Your task to perform on an android device: Open Chrome and go to settings Image 0: 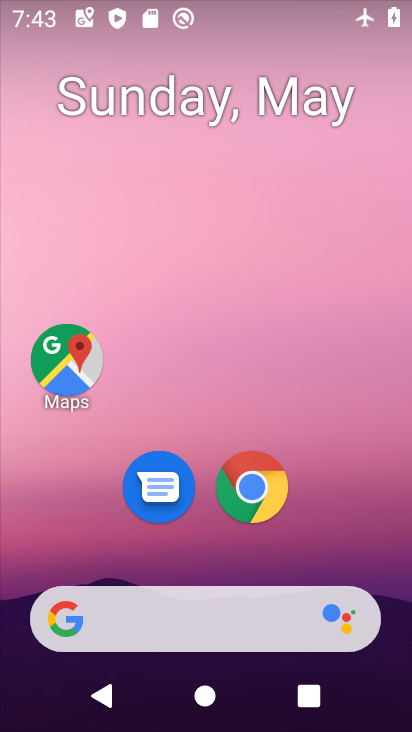
Step 0: drag from (393, 570) to (378, 270)
Your task to perform on an android device: Open Chrome and go to settings Image 1: 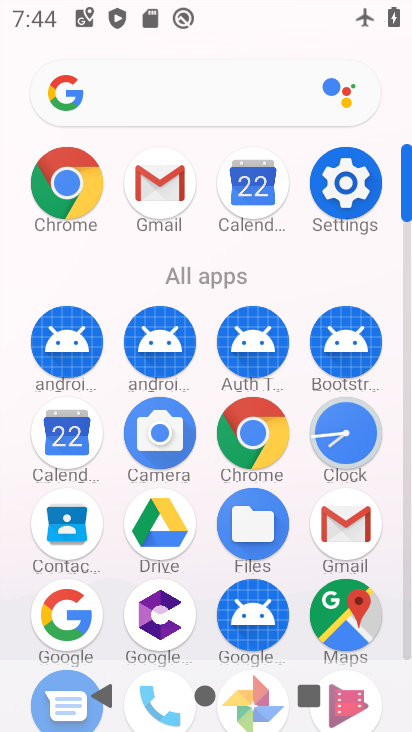
Step 1: click (246, 437)
Your task to perform on an android device: Open Chrome and go to settings Image 2: 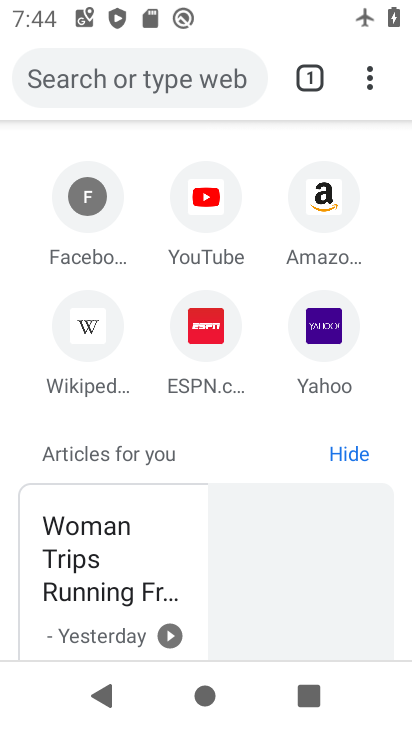
Step 2: click (369, 90)
Your task to perform on an android device: Open Chrome and go to settings Image 3: 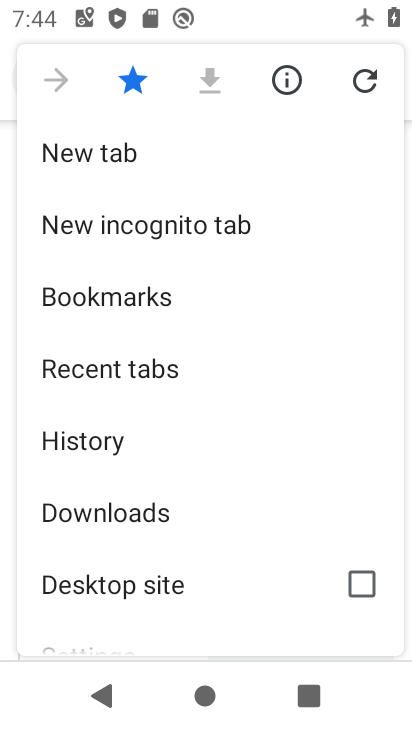
Step 3: drag from (285, 508) to (282, 430)
Your task to perform on an android device: Open Chrome and go to settings Image 4: 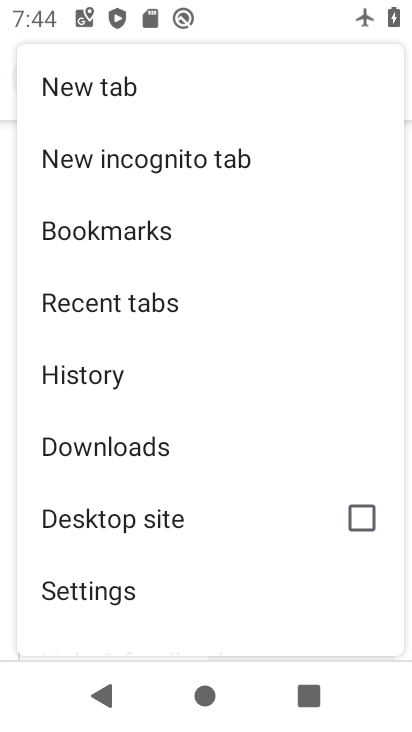
Step 4: drag from (283, 572) to (292, 469)
Your task to perform on an android device: Open Chrome and go to settings Image 5: 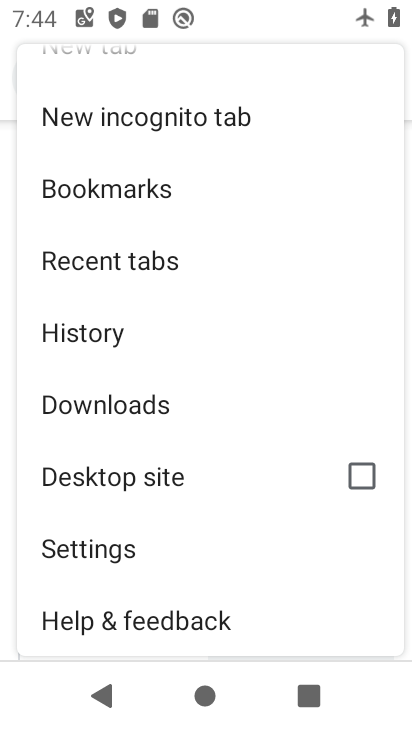
Step 5: click (163, 557)
Your task to perform on an android device: Open Chrome and go to settings Image 6: 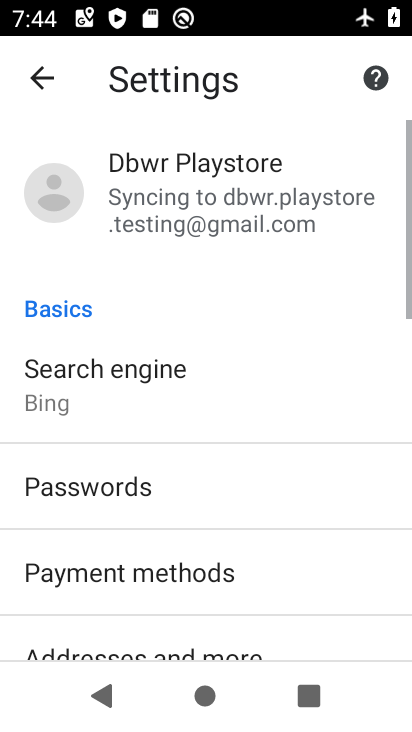
Step 6: task complete